Your task to perform on an android device: Open maps Image 0: 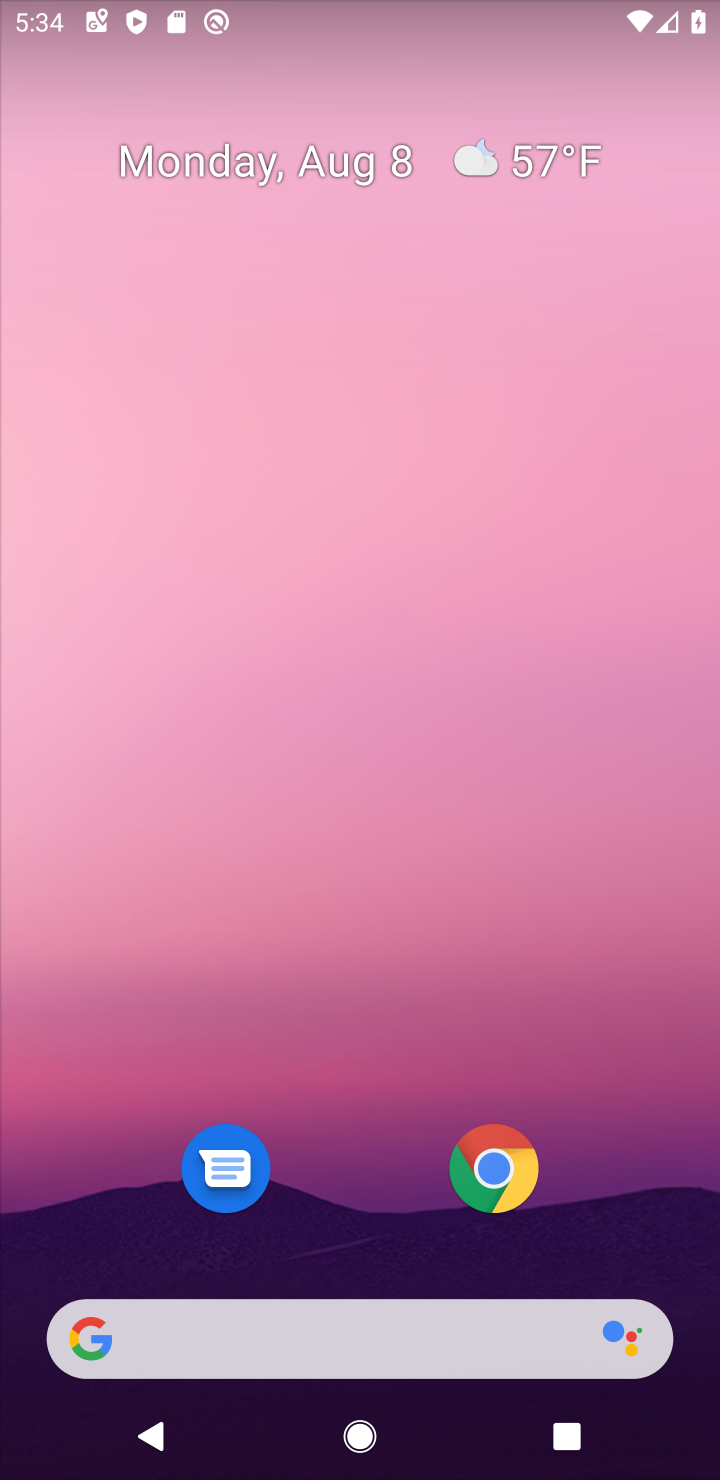
Step 0: drag from (364, 994) to (172, 28)
Your task to perform on an android device: Open maps Image 1: 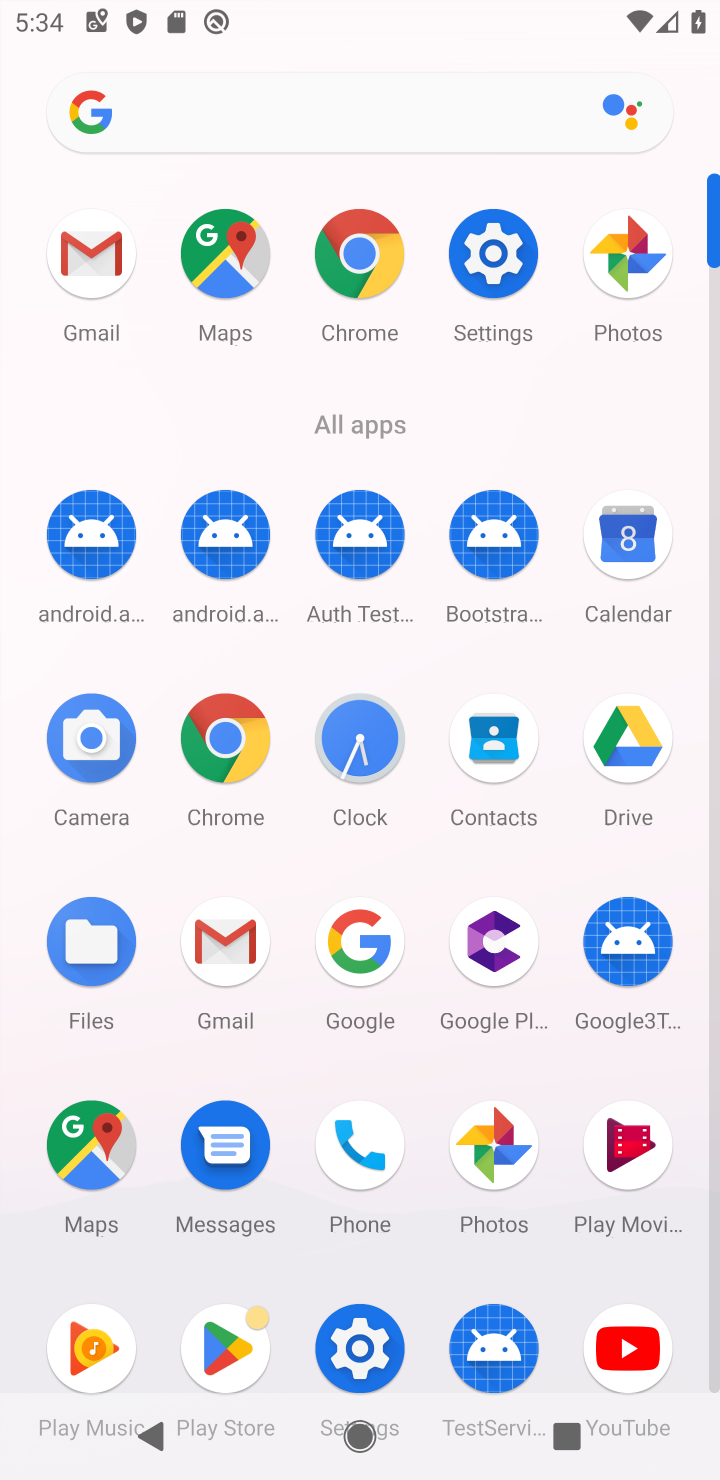
Step 1: click (101, 1168)
Your task to perform on an android device: Open maps Image 2: 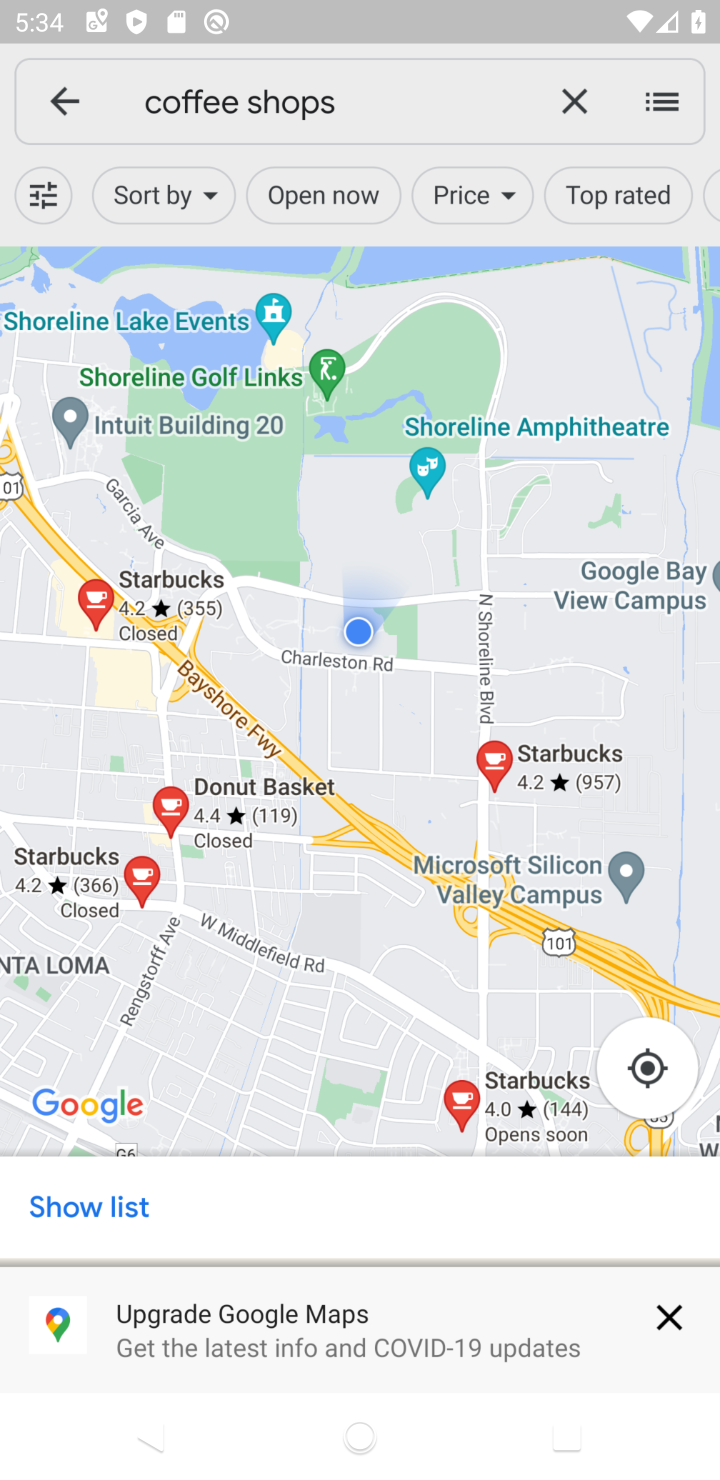
Step 2: click (101, 1168)
Your task to perform on an android device: Open maps Image 3: 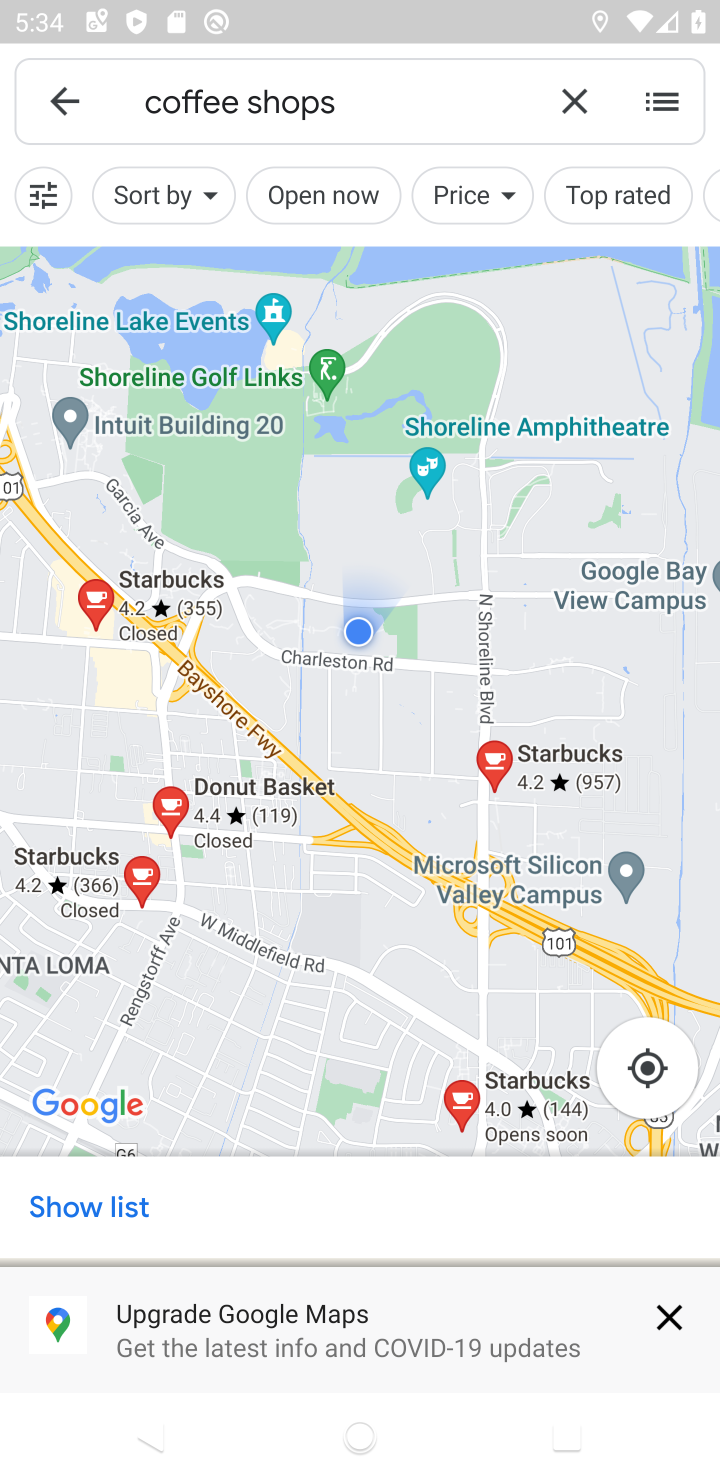
Step 3: task complete